Your task to perform on an android device: find photos in the google photos app Image 0: 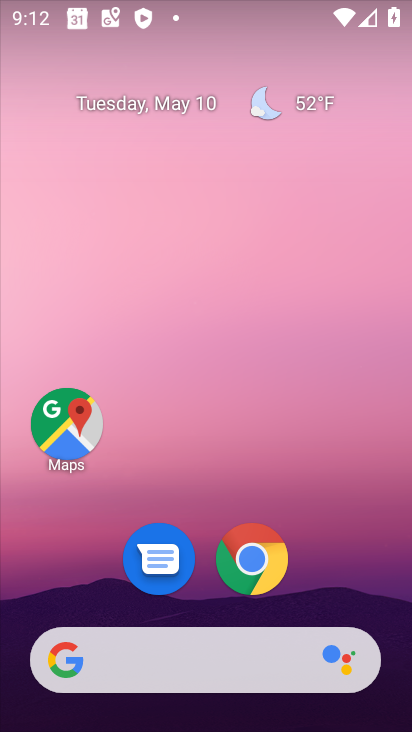
Step 0: drag from (324, 571) to (262, 20)
Your task to perform on an android device: find photos in the google photos app Image 1: 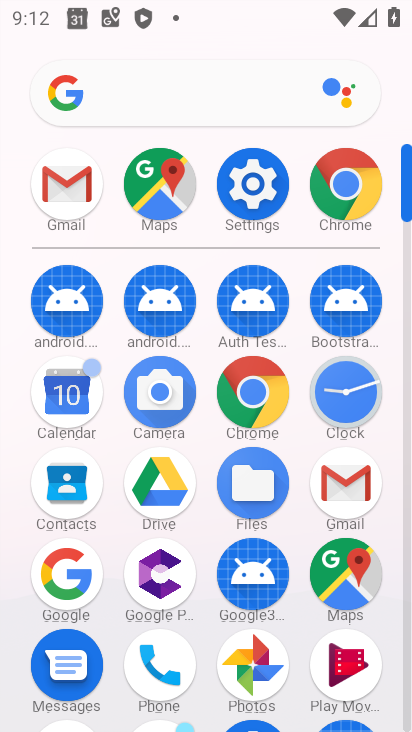
Step 1: drag from (11, 576) to (10, 265)
Your task to perform on an android device: find photos in the google photos app Image 2: 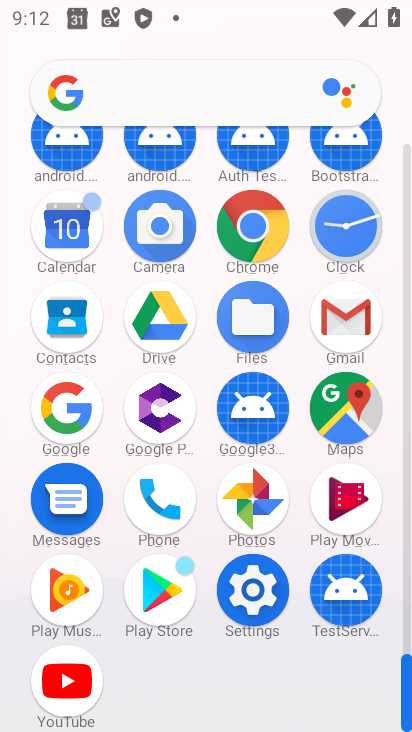
Step 2: click (254, 498)
Your task to perform on an android device: find photos in the google photos app Image 3: 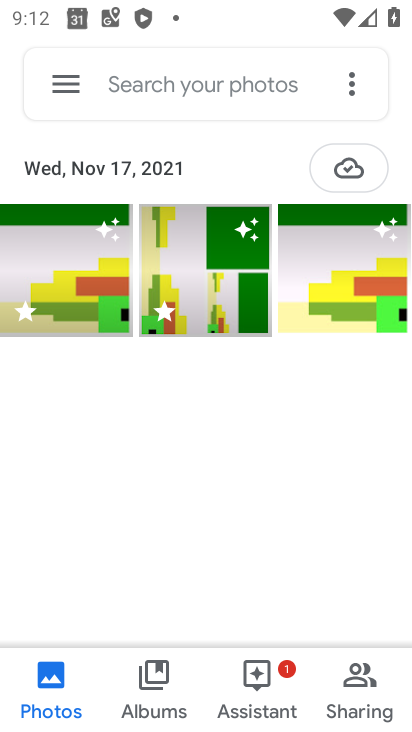
Step 3: task complete